Your task to perform on an android device: toggle wifi Image 0: 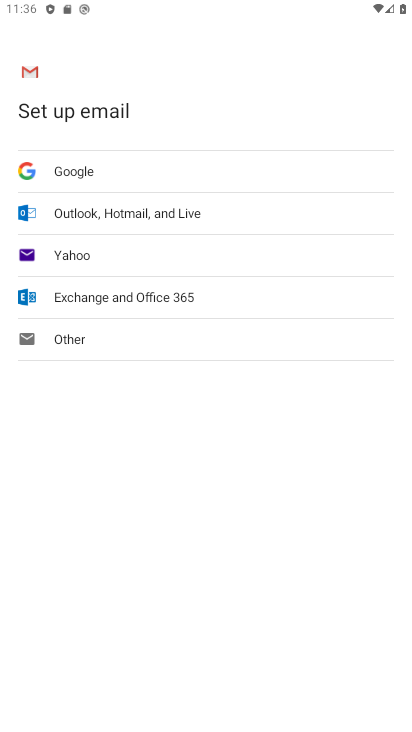
Step 0: press home button
Your task to perform on an android device: toggle wifi Image 1: 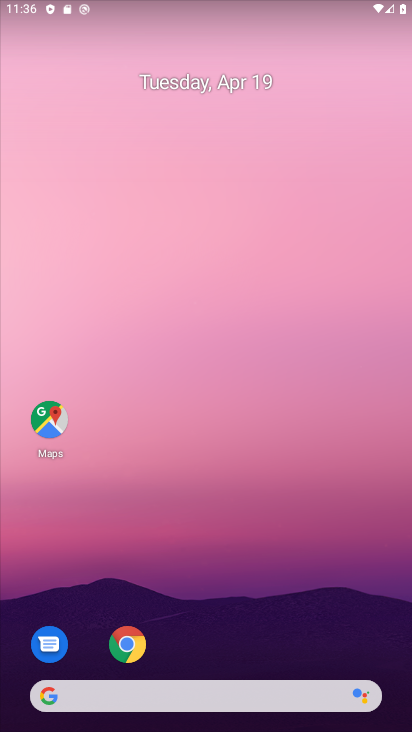
Step 1: drag from (209, 446) to (211, 139)
Your task to perform on an android device: toggle wifi Image 2: 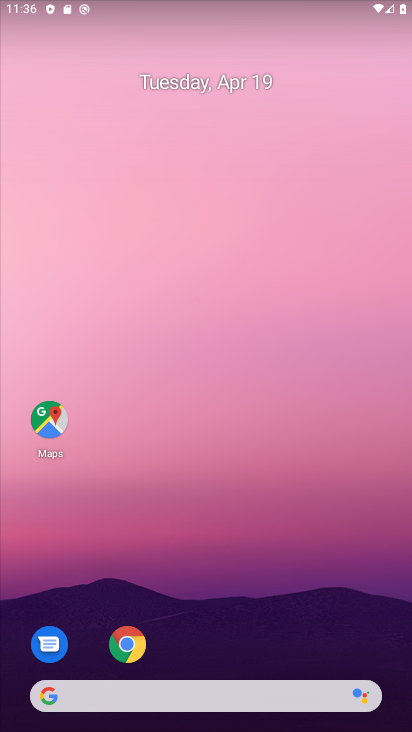
Step 2: drag from (204, 727) to (212, 35)
Your task to perform on an android device: toggle wifi Image 3: 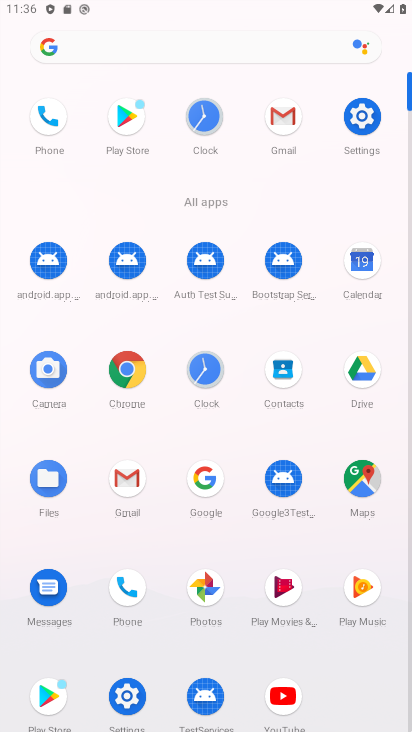
Step 3: click (364, 114)
Your task to perform on an android device: toggle wifi Image 4: 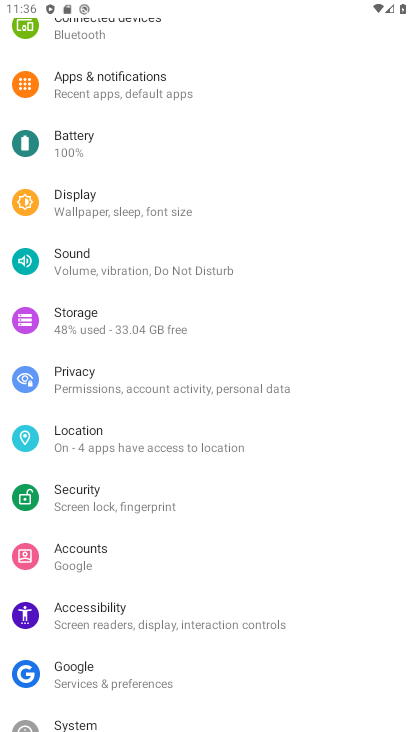
Step 4: drag from (158, 152) to (173, 576)
Your task to perform on an android device: toggle wifi Image 5: 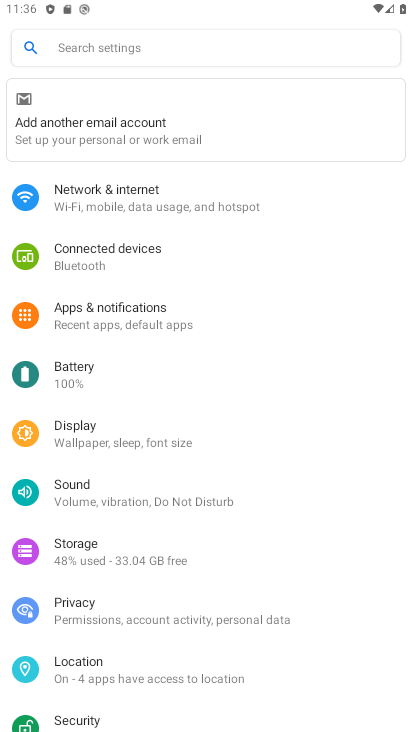
Step 5: click (151, 192)
Your task to perform on an android device: toggle wifi Image 6: 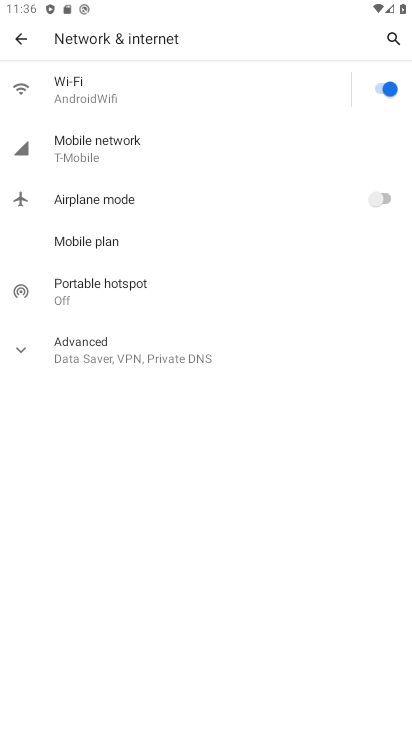
Step 6: click (379, 82)
Your task to perform on an android device: toggle wifi Image 7: 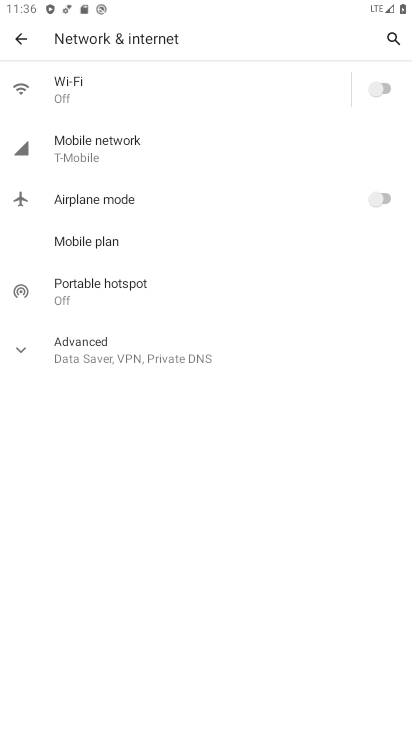
Step 7: task complete